Your task to perform on an android device: check out phone information Image 0: 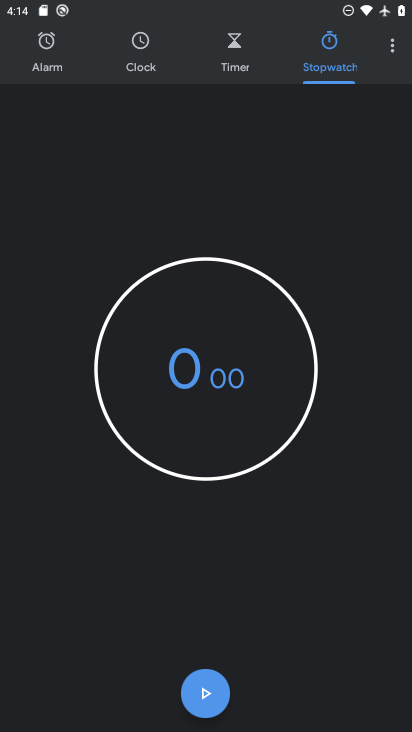
Step 0: press home button
Your task to perform on an android device: check out phone information Image 1: 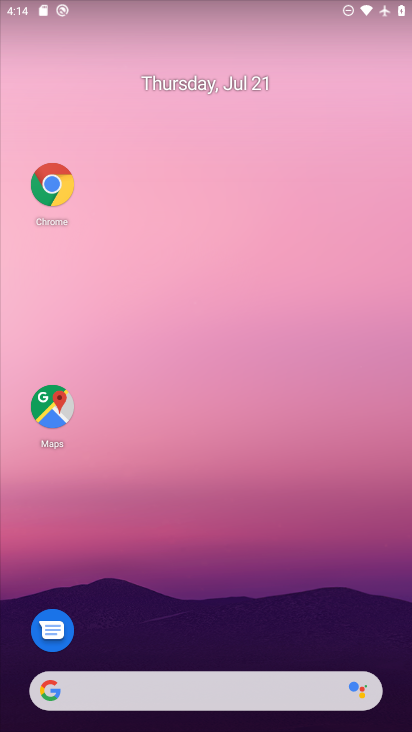
Step 1: drag from (193, 659) to (190, 105)
Your task to perform on an android device: check out phone information Image 2: 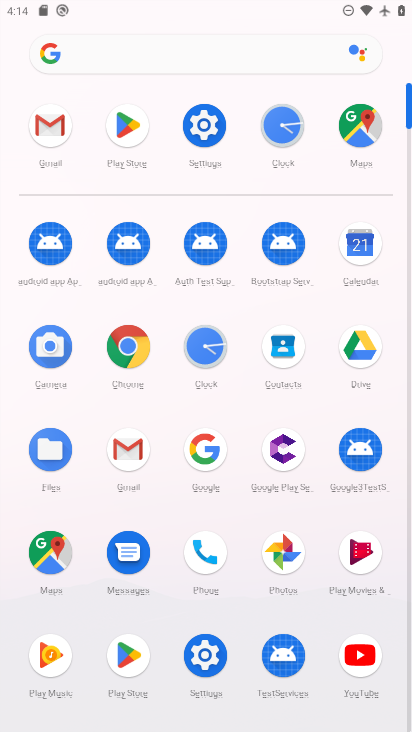
Step 2: click (214, 655)
Your task to perform on an android device: check out phone information Image 3: 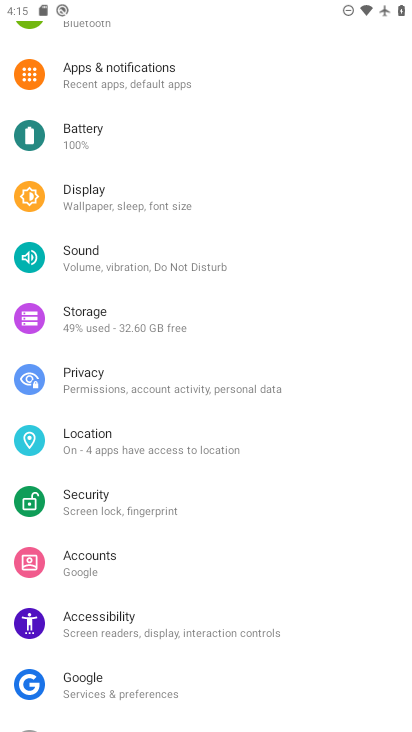
Step 3: task complete